Your task to perform on an android device: Google the capital of Mexico Image 0: 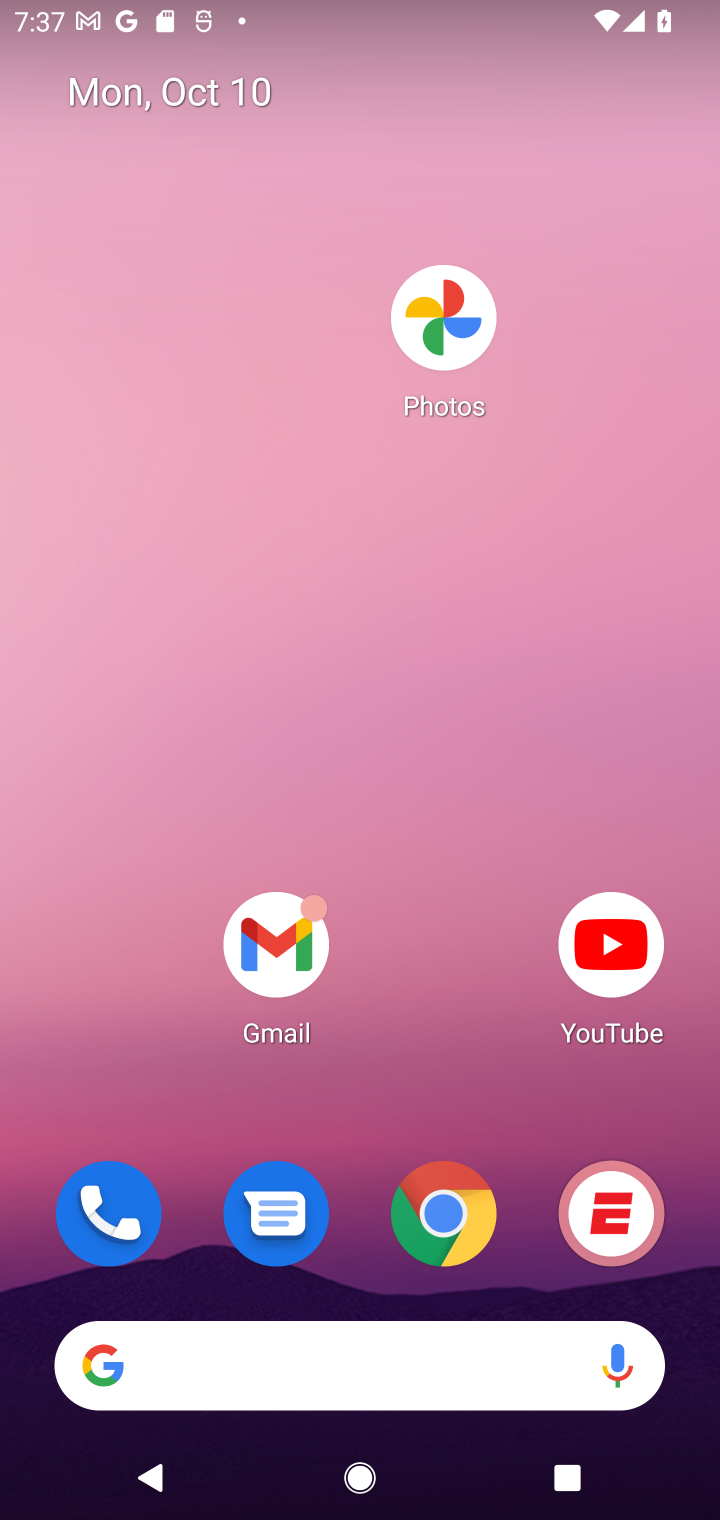
Step 0: click (328, 1363)
Your task to perform on an android device: Google the capital of Mexico Image 1: 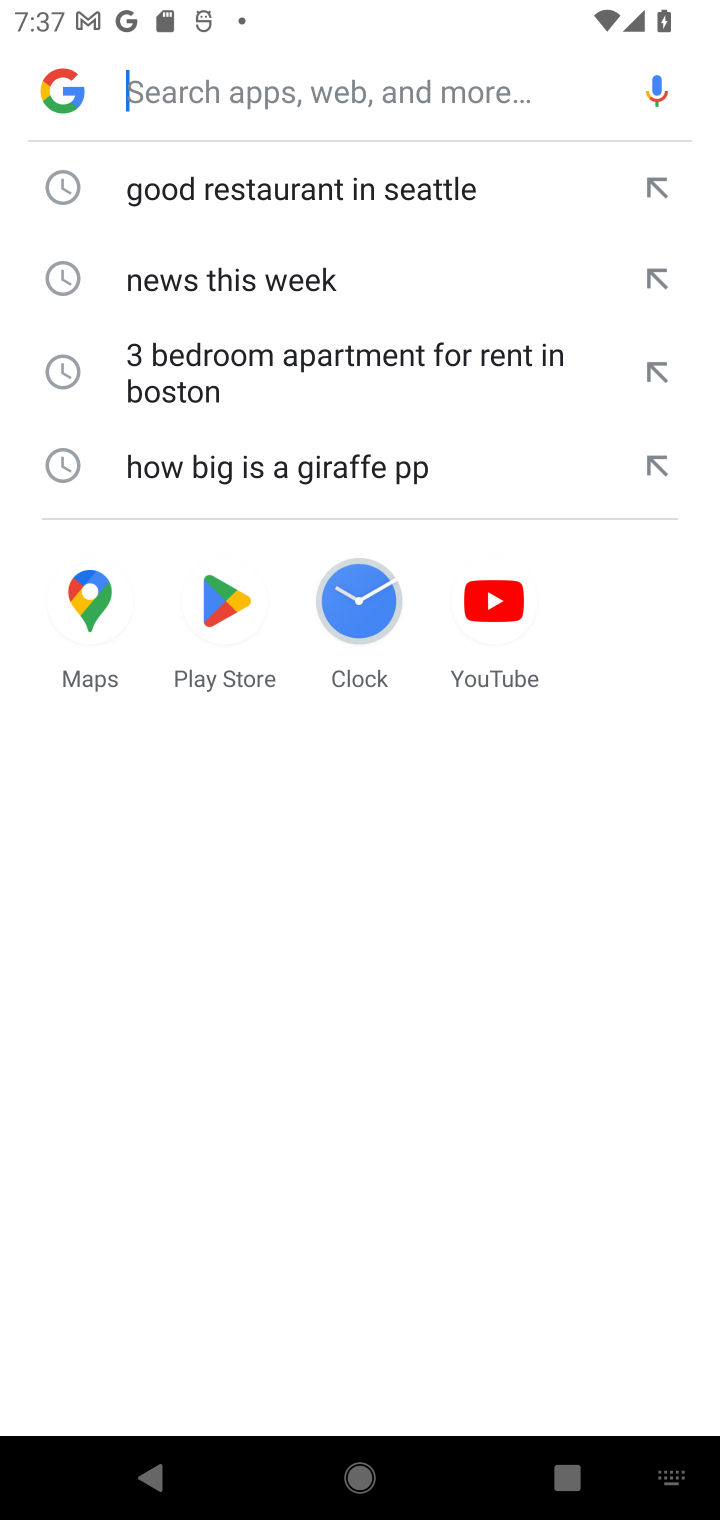
Step 1: type "capital of Mexico"
Your task to perform on an android device: Google the capital of Mexico Image 2: 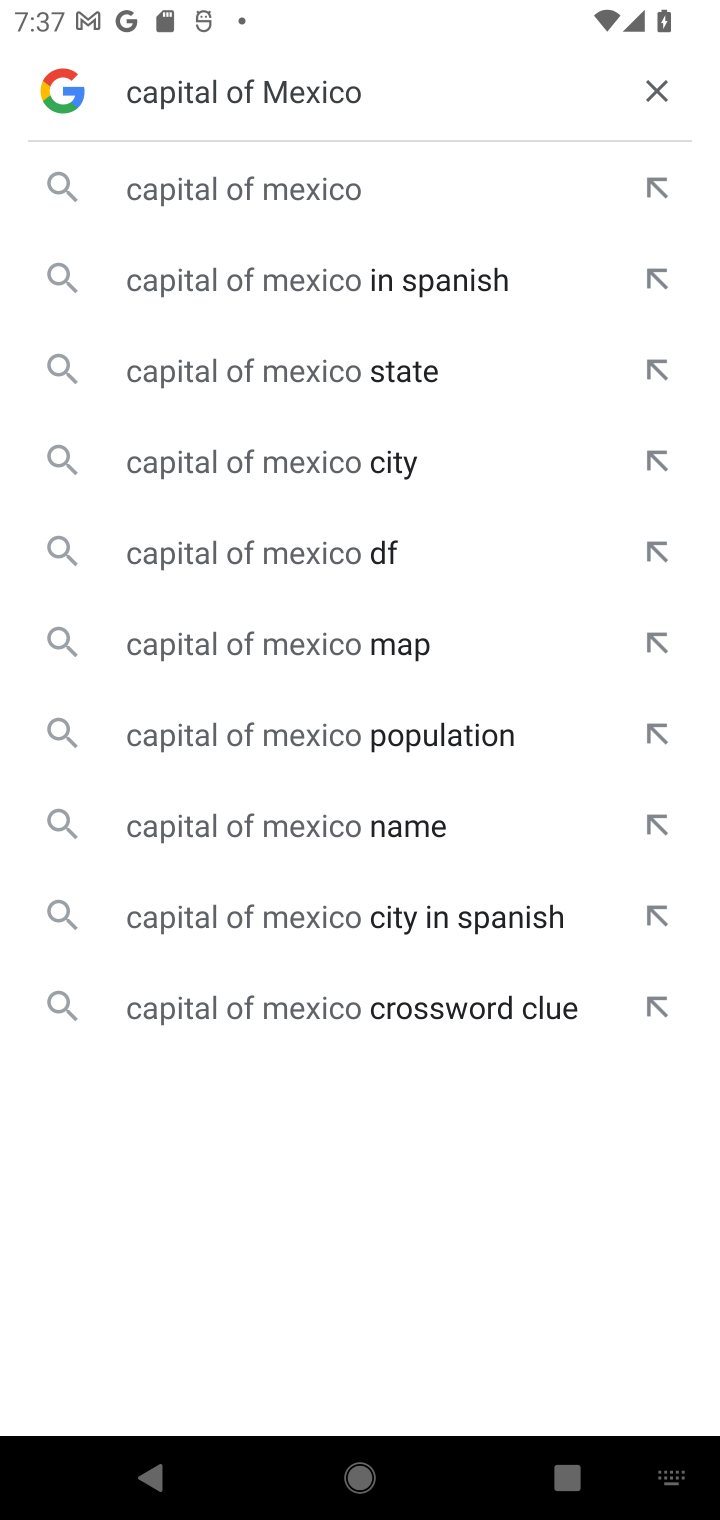
Step 2: click (263, 196)
Your task to perform on an android device: Google the capital of Mexico Image 3: 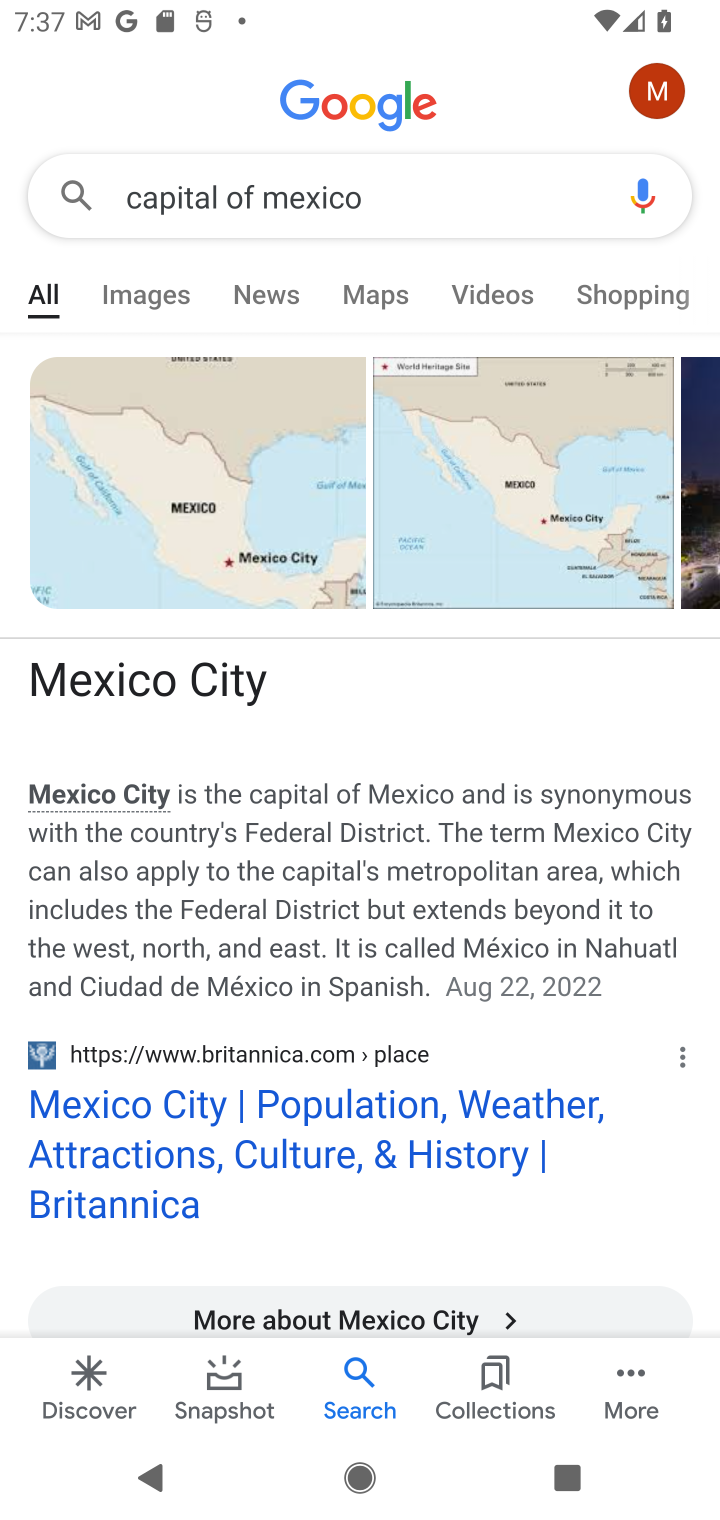
Step 3: task complete